Your task to perform on an android device: show emergency info Image 0: 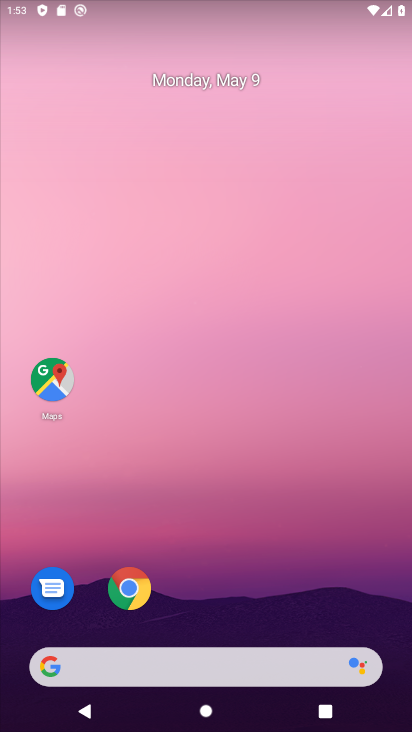
Step 0: drag from (358, 597) to (302, 44)
Your task to perform on an android device: show emergency info Image 1: 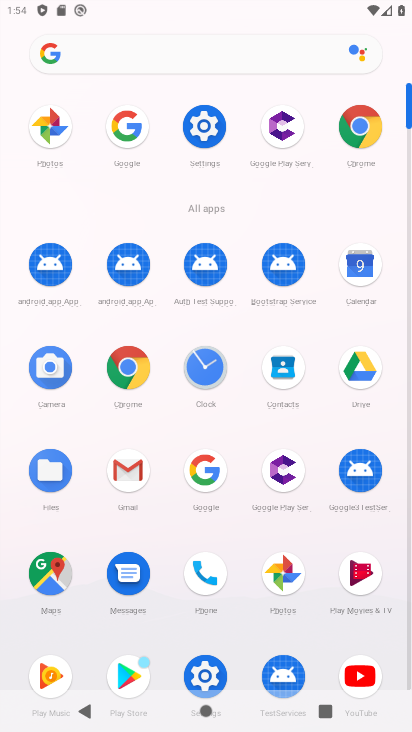
Step 1: click (213, 672)
Your task to perform on an android device: show emergency info Image 2: 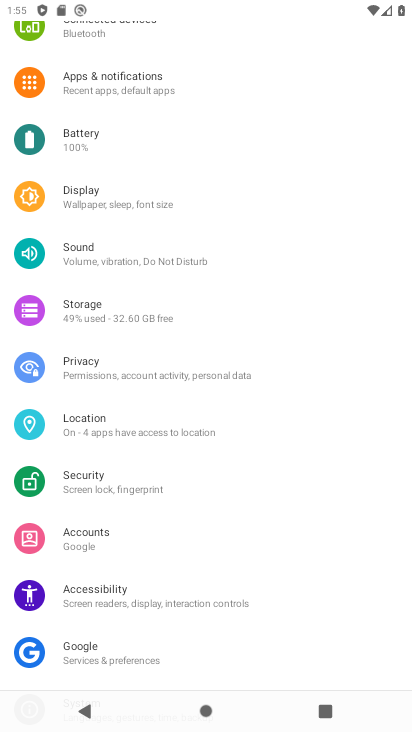
Step 2: drag from (120, 635) to (170, 107)
Your task to perform on an android device: show emergency info Image 3: 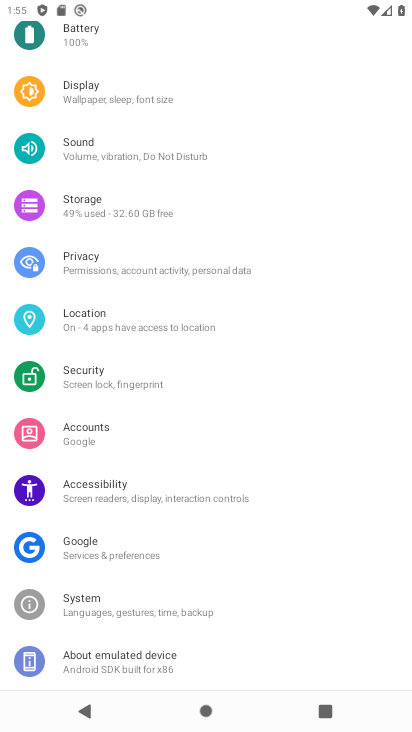
Step 3: click (159, 655)
Your task to perform on an android device: show emergency info Image 4: 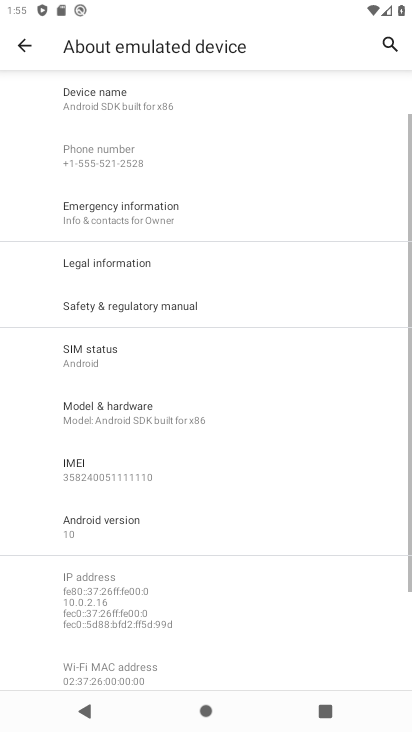
Step 4: click (167, 217)
Your task to perform on an android device: show emergency info Image 5: 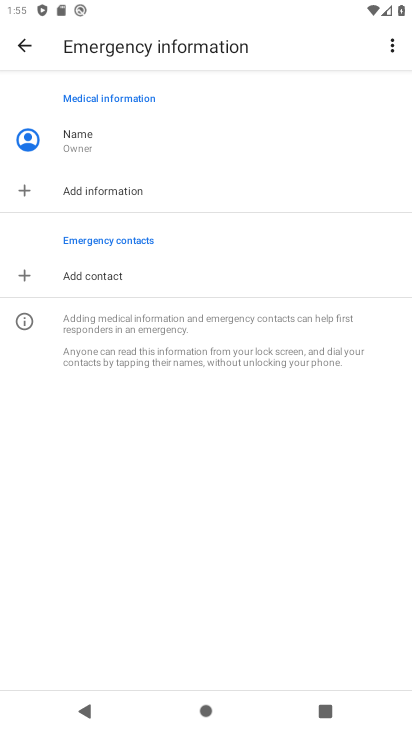
Step 5: task complete